Your task to perform on an android device: turn notification dots off Image 0: 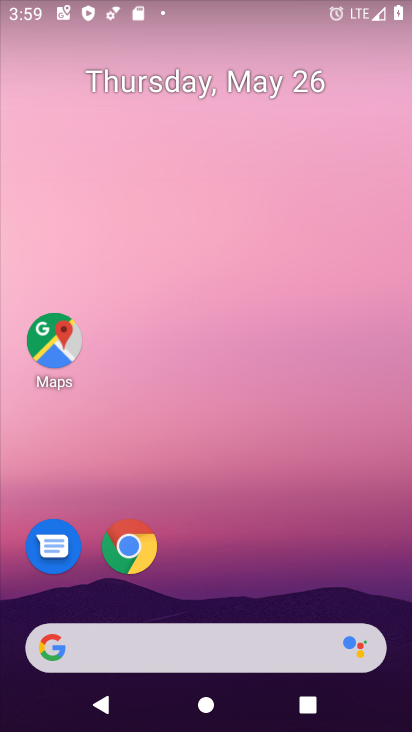
Step 0: drag from (178, 525) to (278, 10)
Your task to perform on an android device: turn notification dots off Image 1: 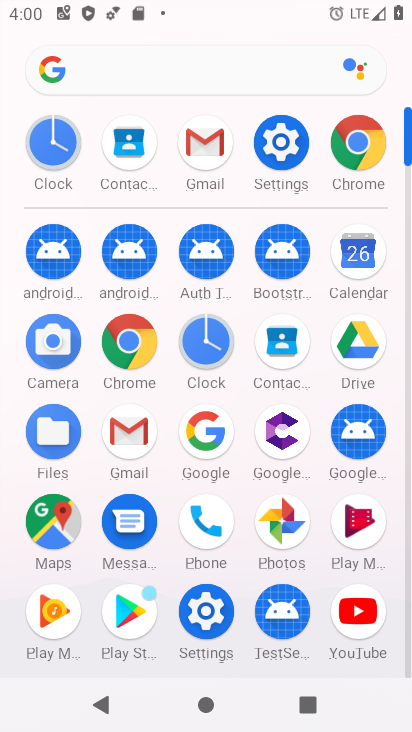
Step 1: click (282, 140)
Your task to perform on an android device: turn notification dots off Image 2: 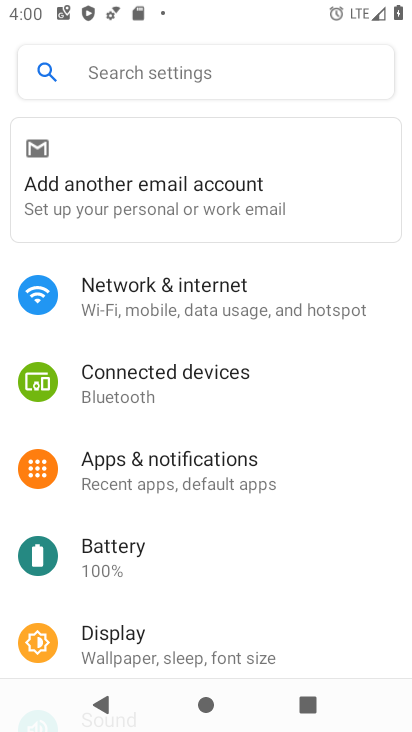
Step 2: click (166, 487)
Your task to perform on an android device: turn notification dots off Image 3: 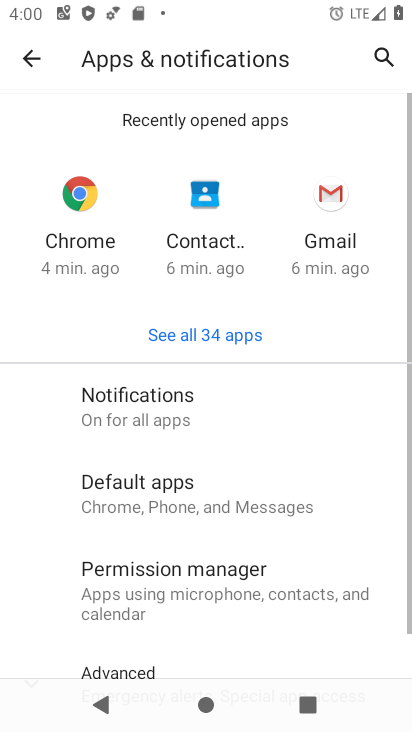
Step 3: drag from (258, 607) to (307, 224)
Your task to perform on an android device: turn notification dots off Image 4: 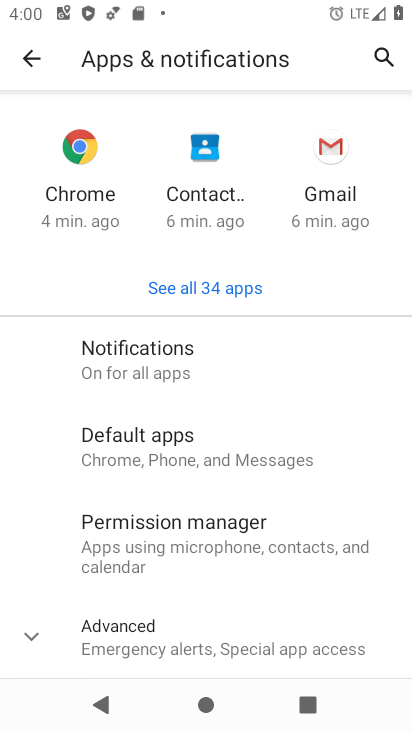
Step 4: click (119, 341)
Your task to perform on an android device: turn notification dots off Image 5: 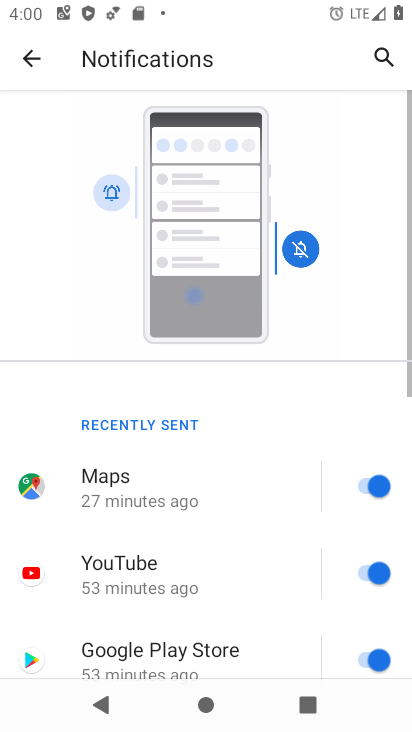
Step 5: drag from (209, 583) to (331, 50)
Your task to perform on an android device: turn notification dots off Image 6: 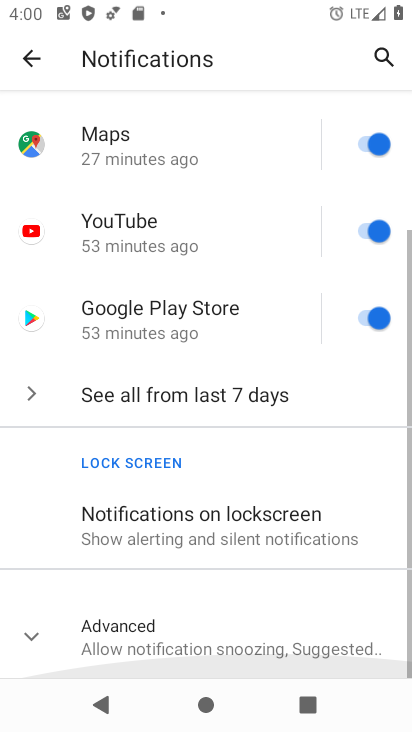
Step 6: drag from (180, 534) to (294, 100)
Your task to perform on an android device: turn notification dots off Image 7: 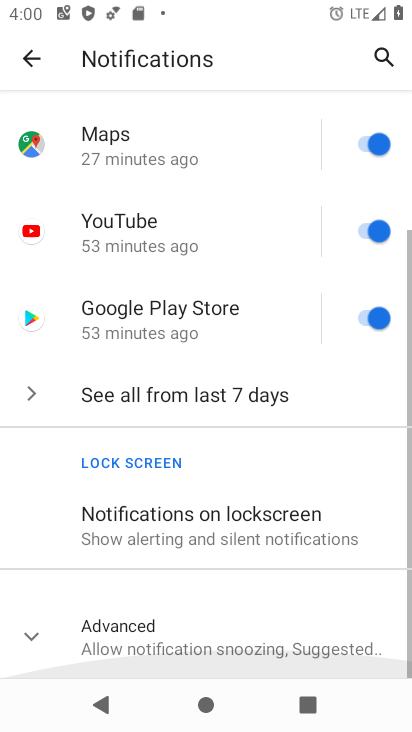
Step 7: click (85, 628)
Your task to perform on an android device: turn notification dots off Image 8: 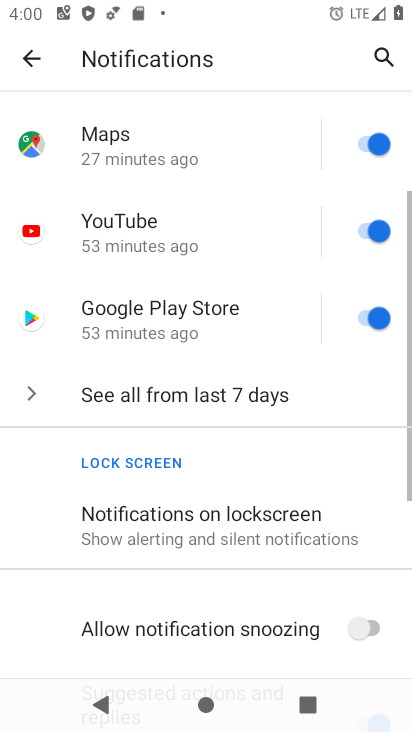
Step 8: drag from (190, 626) to (286, 136)
Your task to perform on an android device: turn notification dots off Image 9: 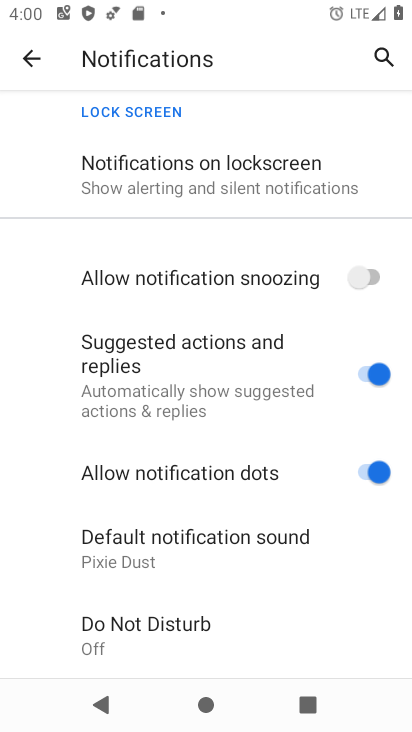
Step 9: click (377, 474)
Your task to perform on an android device: turn notification dots off Image 10: 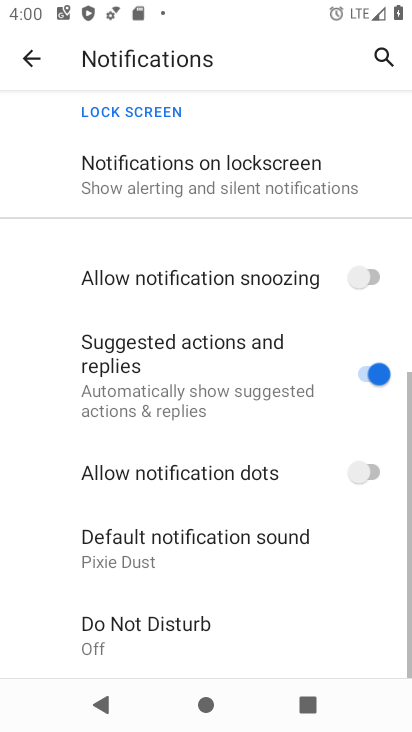
Step 10: task complete